Your task to perform on an android device: Open display settings Image 0: 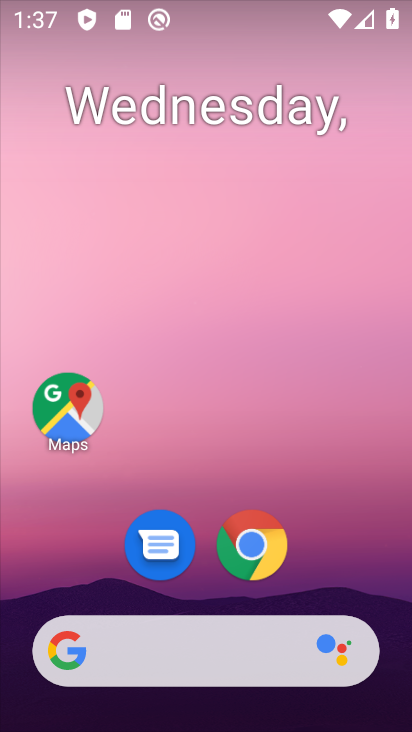
Step 0: drag from (362, 548) to (348, 167)
Your task to perform on an android device: Open display settings Image 1: 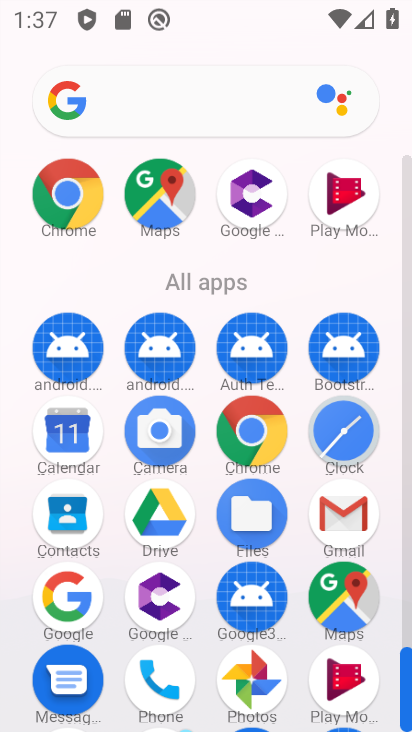
Step 1: drag from (258, 543) to (272, 188)
Your task to perform on an android device: Open display settings Image 2: 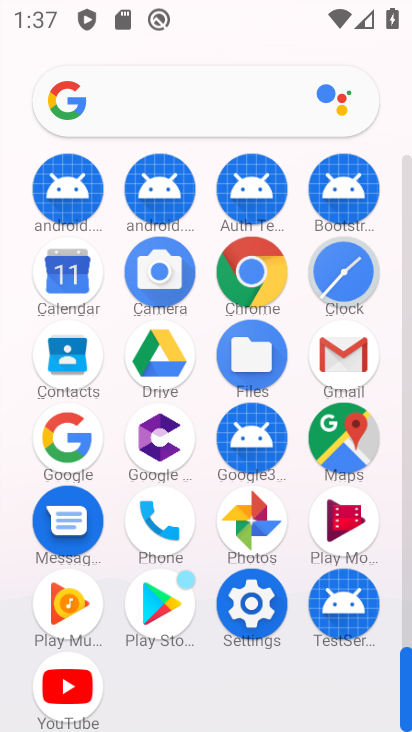
Step 2: click (272, 594)
Your task to perform on an android device: Open display settings Image 3: 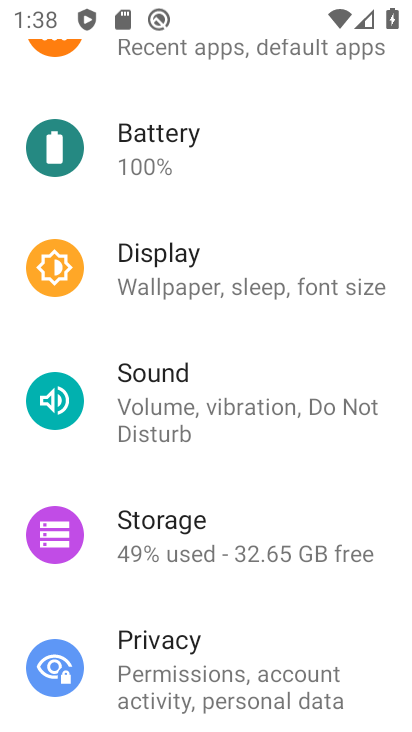
Step 3: drag from (253, 569) to (246, 389)
Your task to perform on an android device: Open display settings Image 4: 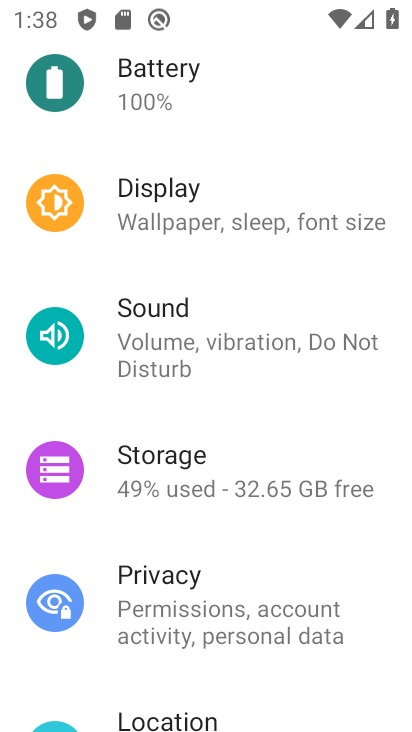
Step 4: click (277, 194)
Your task to perform on an android device: Open display settings Image 5: 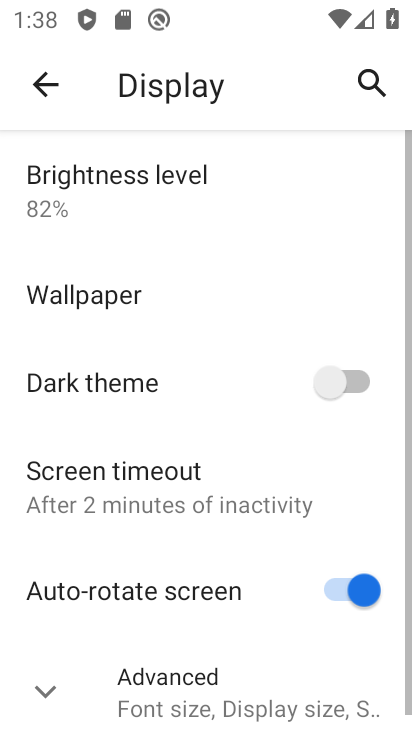
Step 5: task complete